Your task to perform on an android device: Set the phone to "Do not disturb". Image 0: 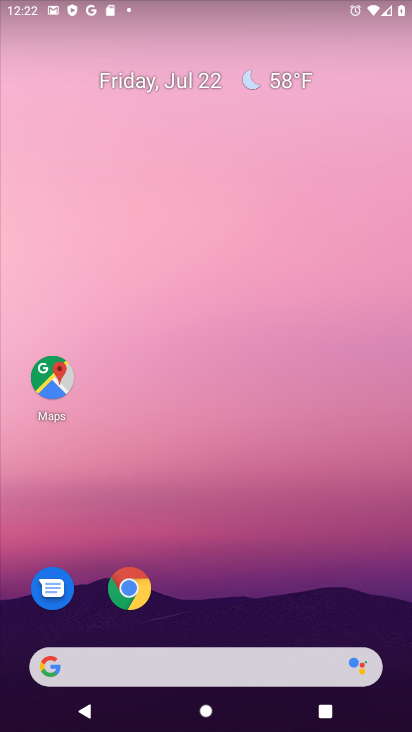
Step 0: drag from (310, 591) to (265, 110)
Your task to perform on an android device: Set the phone to "Do not disturb". Image 1: 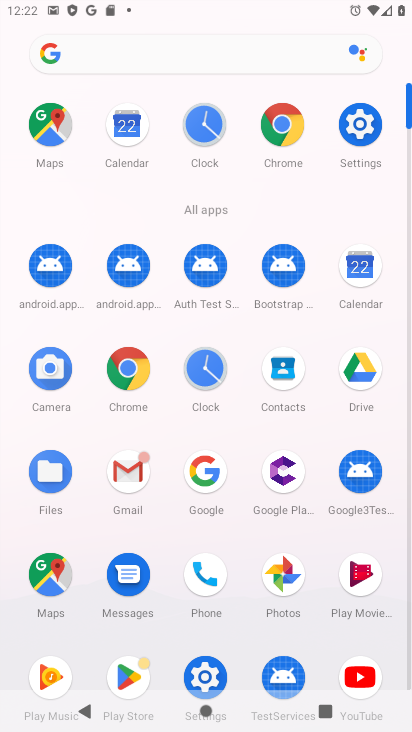
Step 1: click (357, 135)
Your task to perform on an android device: Set the phone to "Do not disturb". Image 2: 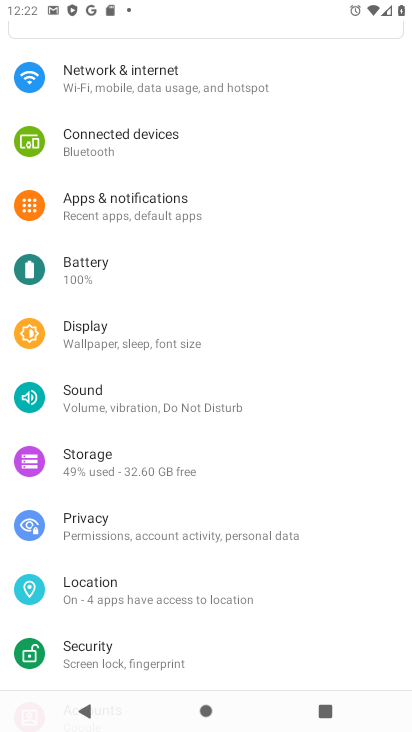
Step 2: click (120, 396)
Your task to perform on an android device: Set the phone to "Do not disturb". Image 3: 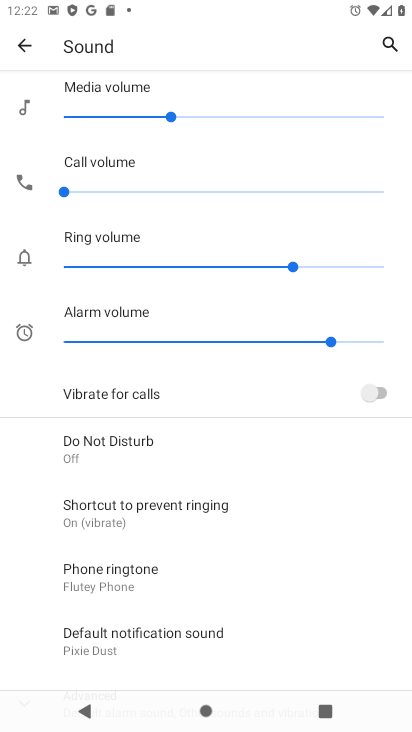
Step 3: click (156, 460)
Your task to perform on an android device: Set the phone to "Do not disturb". Image 4: 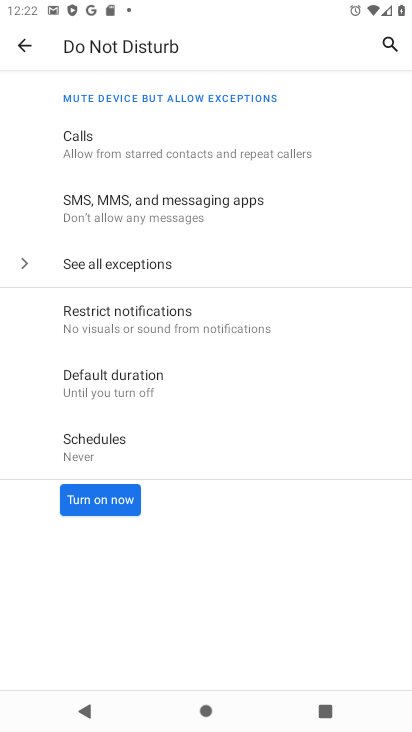
Step 4: click (77, 505)
Your task to perform on an android device: Set the phone to "Do not disturb". Image 5: 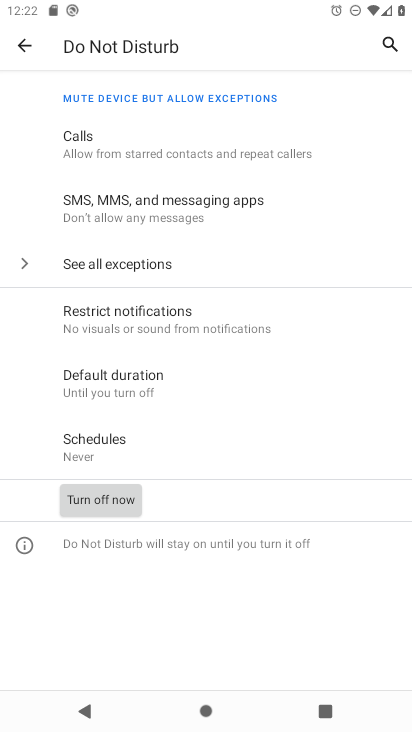
Step 5: task complete